Your task to perform on an android device: Search for vegetarian restaurants on Maps Image 0: 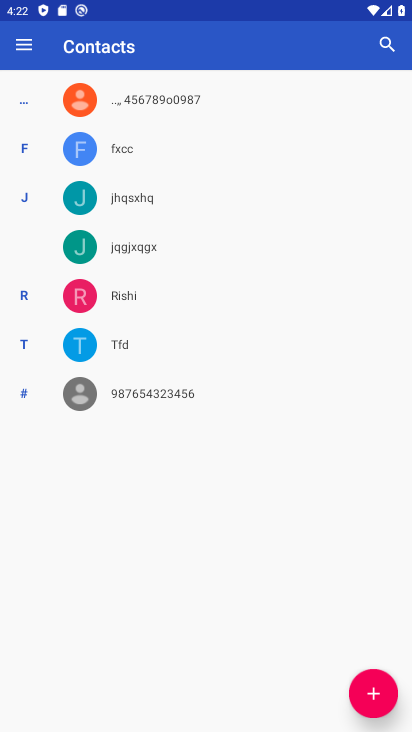
Step 0: press back button
Your task to perform on an android device: Search for vegetarian restaurants on Maps Image 1: 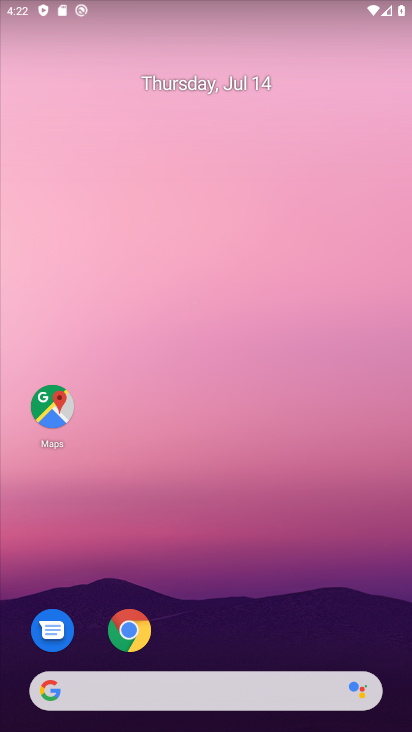
Step 1: click (41, 410)
Your task to perform on an android device: Search for vegetarian restaurants on Maps Image 2: 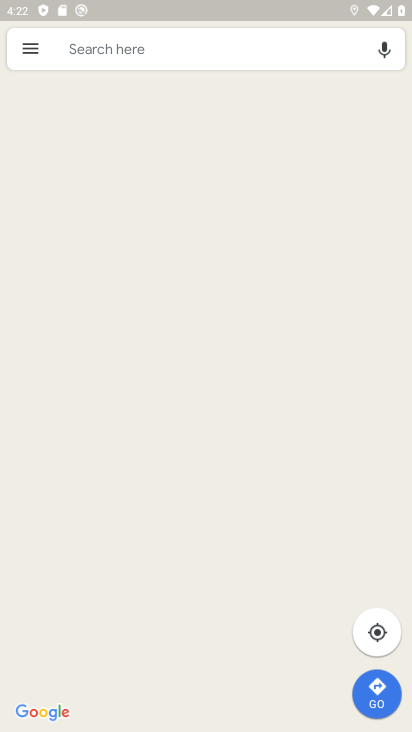
Step 2: click (121, 47)
Your task to perform on an android device: Search for vegetarian restaurants on Maps Image 3: 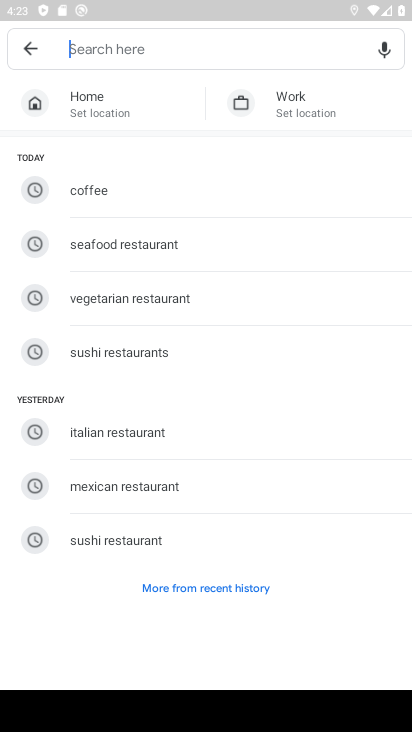
Step 3: type "vegetarian res"
Your task to perform on an android device: Search for vegetarian restaurants on Maps Image 4: 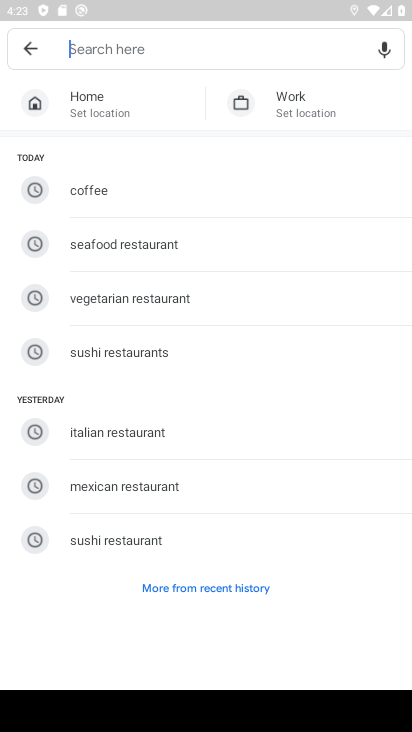
Step 4: click (138, 304)
Your task to perform on an android device: Search for vegetarian restaurants on Maps Image 5: 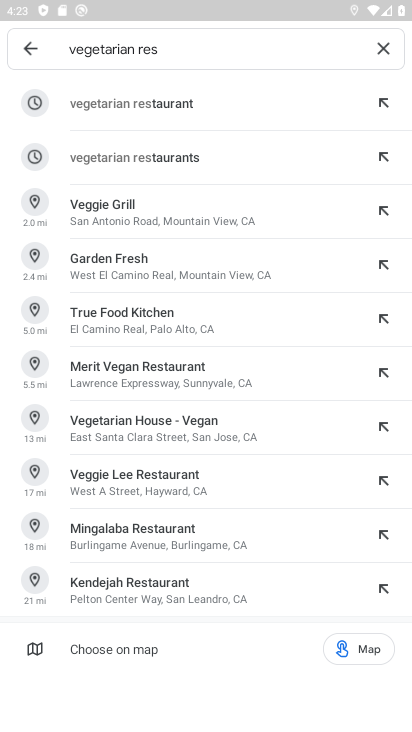
Step 5: click (128, 87)
Your task to perform on an android device: Search for vegetarian restaurants on Maps Image 6: 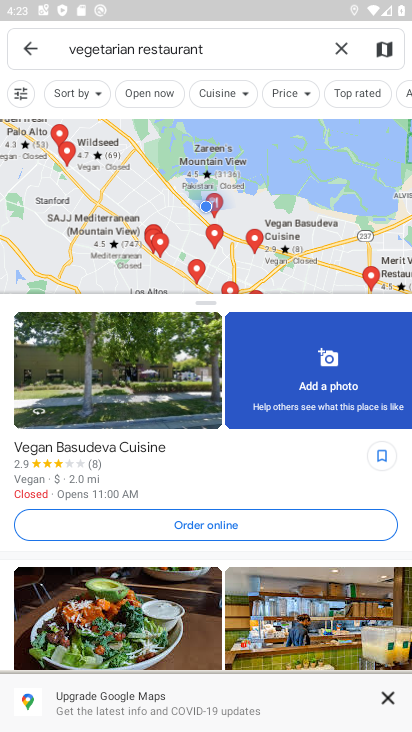
Step 6: task complete